Your task to perform on an android device: empty trash in google photos Image 0: 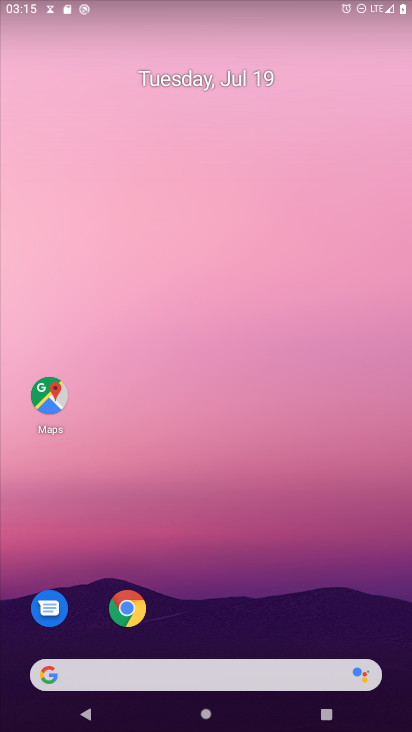
Step 0: drag from (213, 557) to (222, 15)
Your task to perform on an android device: empty trash in google photos Image 1: 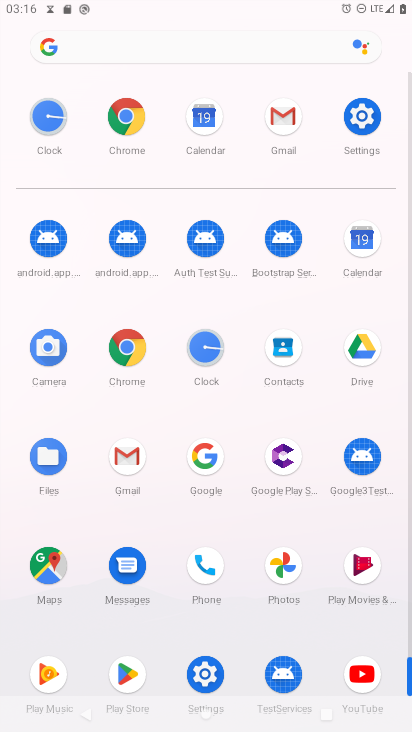
Step 1: click (280, 572)
Your task to perform on an android device: empty trash in google photos Image 2: 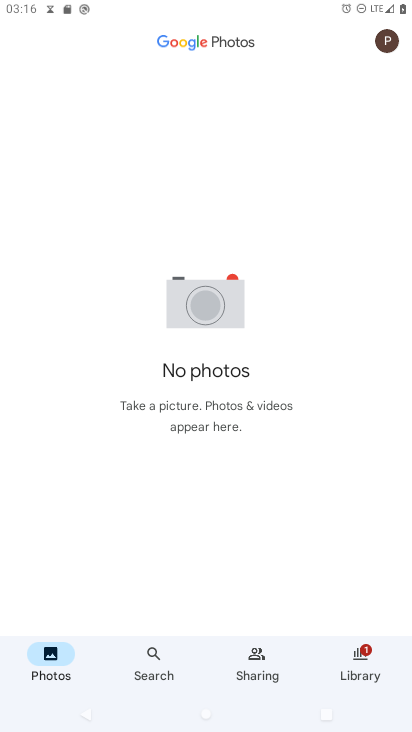
Step 2: click (379, 37)
Your task to perform on an android device: empty trash in google photos Image 3: 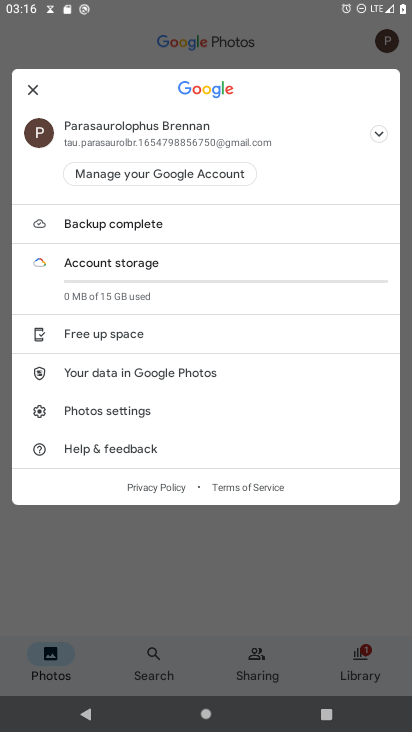
Step 3: click (185, 572)
Your task to perform on an android device: empty trash in google photos Image 4: 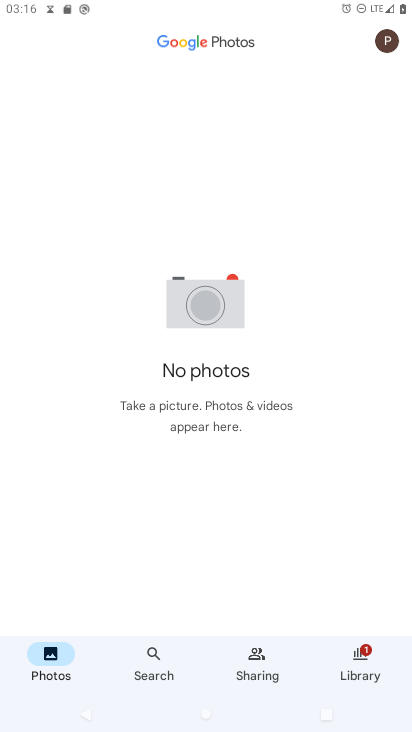
Step 4: click (364, 662)
Your task to perform on an android device: empty trash in google photos Image 5: 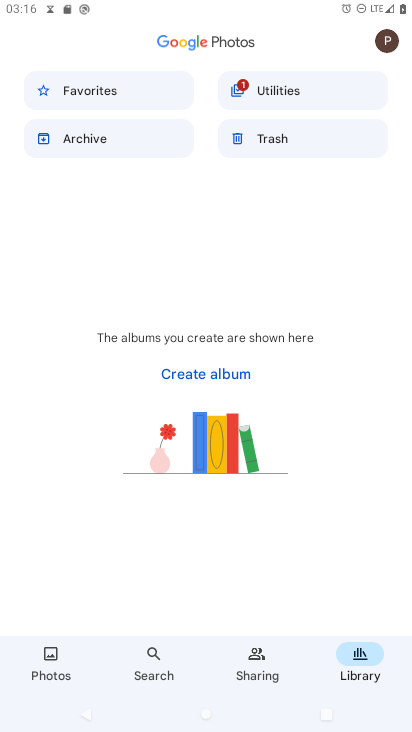
Step 5: click (280, 129)
Your task to perform on an android device: empty trash in google photos Image 6: 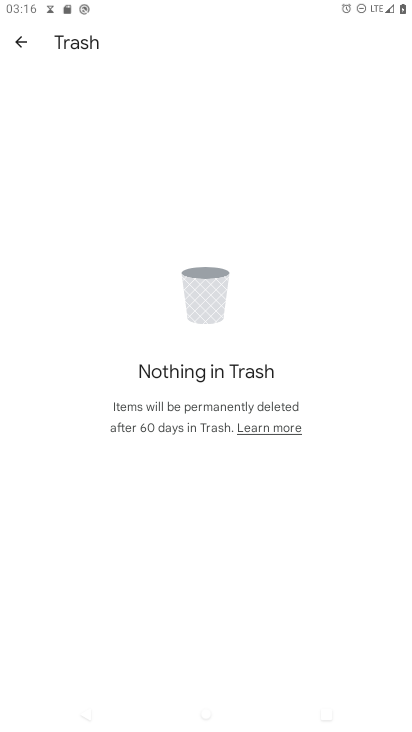
Step 6: task complete